Your task to perform on an android device: Go to internet settings Image 0: 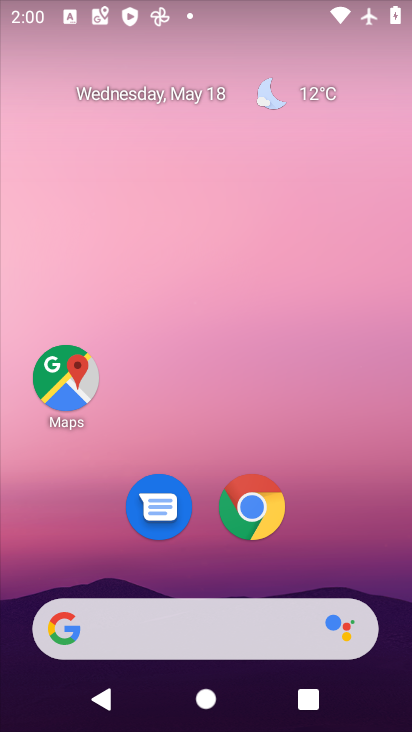
Step 0: drag from (392, 614) to (363, 259)
Your task to perform on an android device: Go to internet settings Image 1: 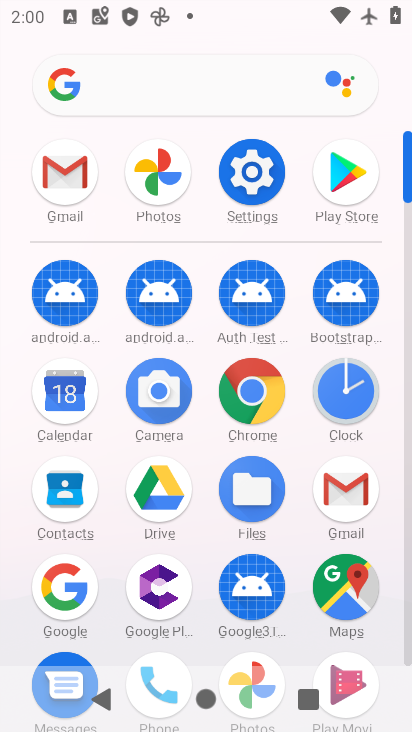
Step 1: click (408, 654)
Your task to perform on an android device: Go to internet settings Image 2: 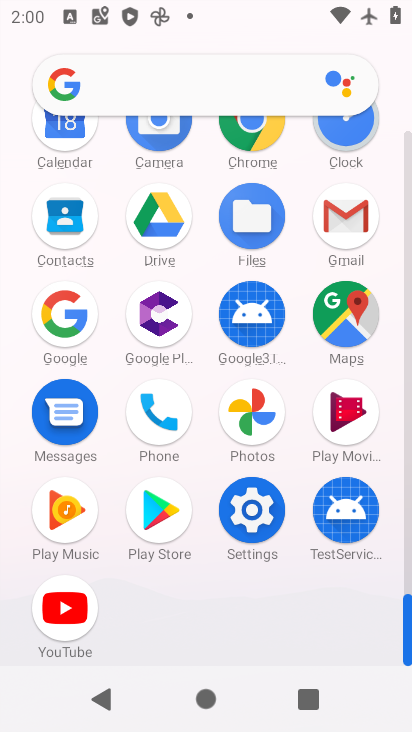
Step 2: click (253, 513)
Your task to perform on an android device: Go to internet settings Image 3: 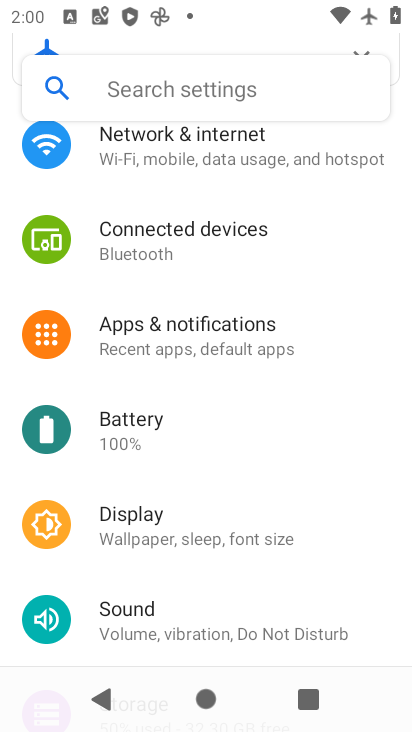
Step 3: drag from (375, 241) to (341, 455)
Your task to perform on an android device: Go to internet settings Image 4: 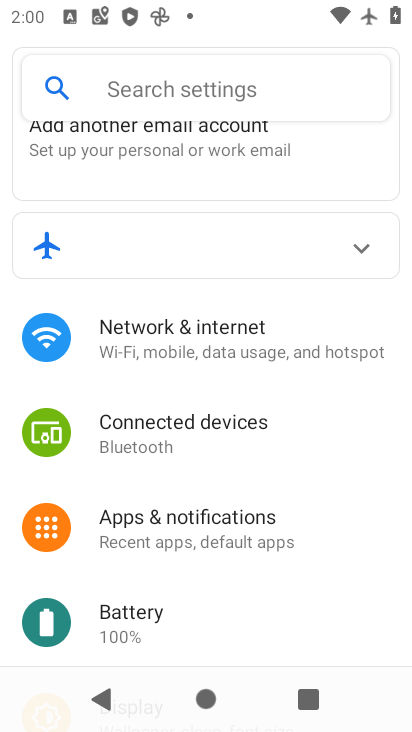
Step 4: click (158, 333)
Your task to perform on an android device: Go to internet settings Image 5: 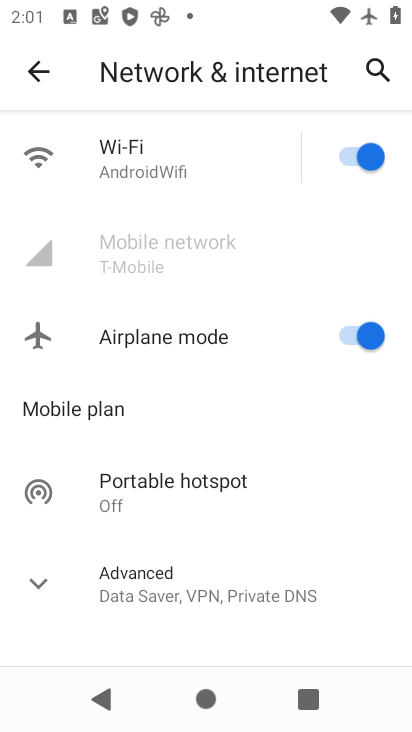
Step 5: click (38, 583)
Your task to perform on an android device: Go to internet settings Image 6: 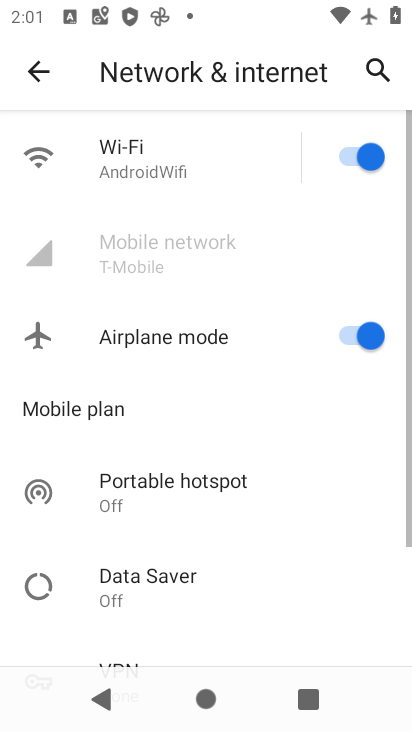
Step 6: task complete